Your task to perform on an android device: Open ESPN.com Image 0: 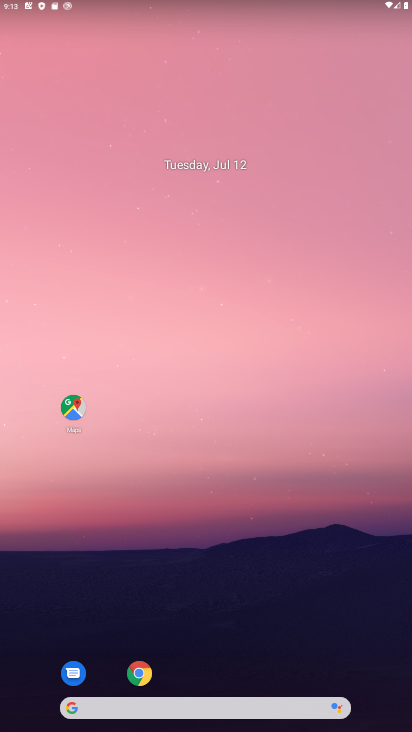
Step 0: click (136, 676)
Your task to perform on an android device: Open ESPN.com Image 1: 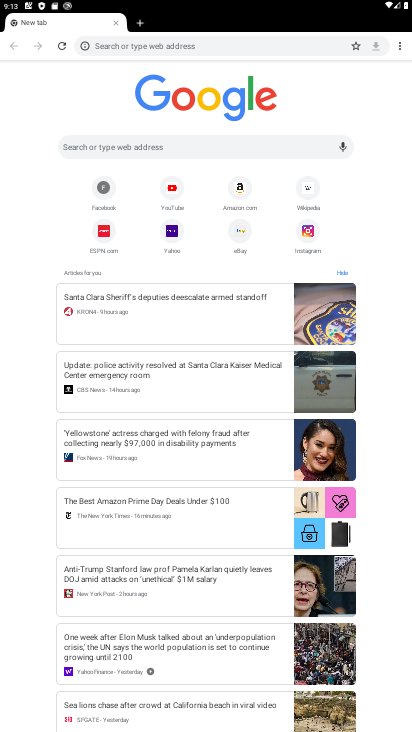
Step 1: click (100, 243)
Your task to perform on an android device: Open ESPN.com Image 2: 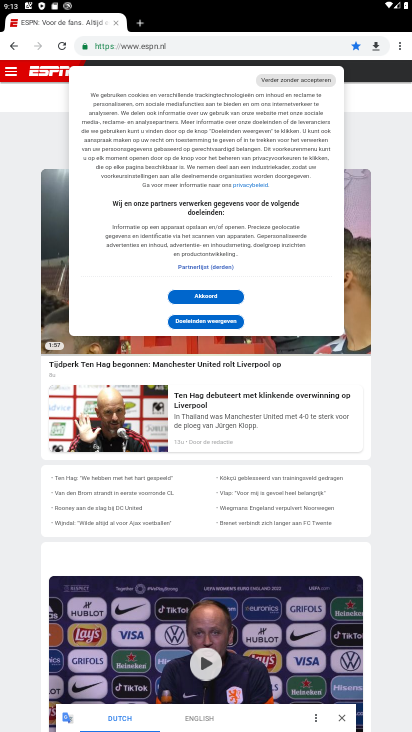
Step 2: task complete